Your task to perform on an android device: Play the last video I watched on Youtube Image 0: 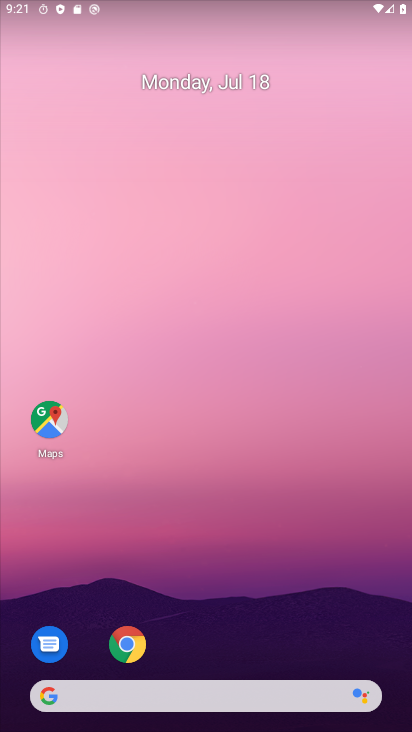
Step 0: press home button
Your task to perform on an android device: Play the last video I watched on Youtube Image 1: 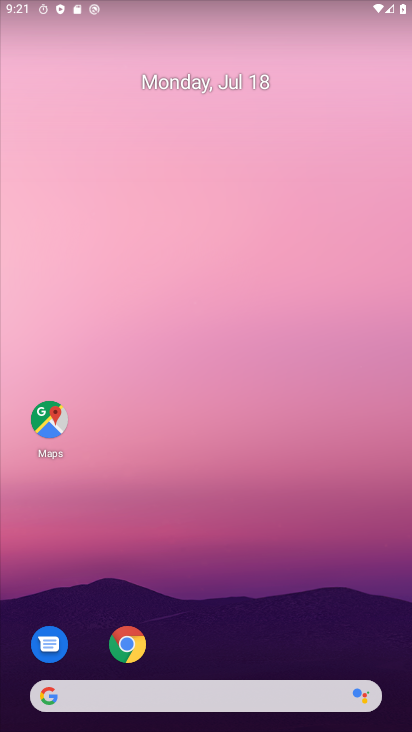
Step 1: drag from (235, 656) to (248, 0)
Your task to perform on an android device: Play the last video I watched on Youtube Image 2: 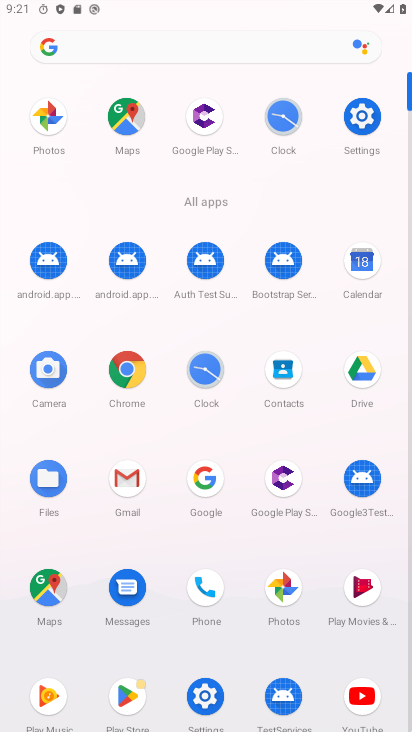
Step 2: click (358, 692)
Your task to perform on an android device: Play the last video I watched on Youtube Image 3: 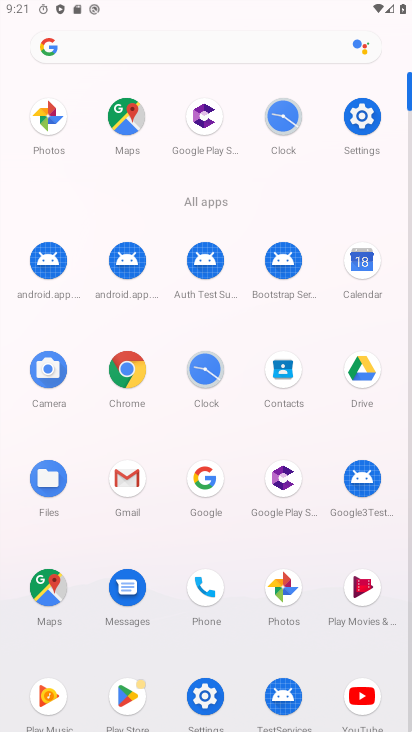
Step 3: click (358, 691)
Your task to perform on an android device: Play the last video I watched on Youtube Image 4: 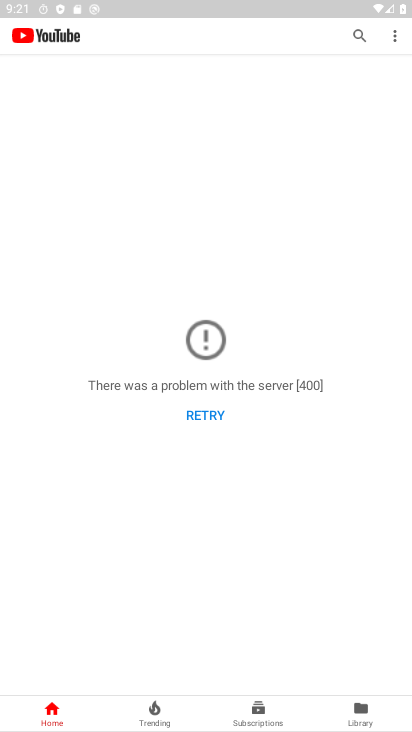
Step 4: task complete